Your task to perform on an android device: Open Maps and search for coffee Image 0: 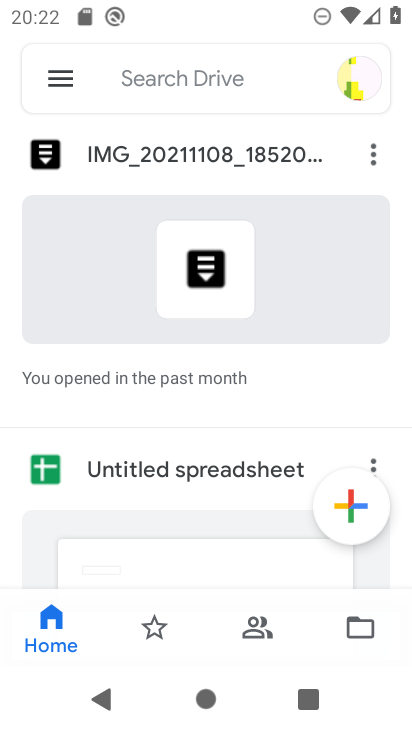
Step 0: press home button
Your task to perform on an android device: Open Maps and search for coffee Image 1: 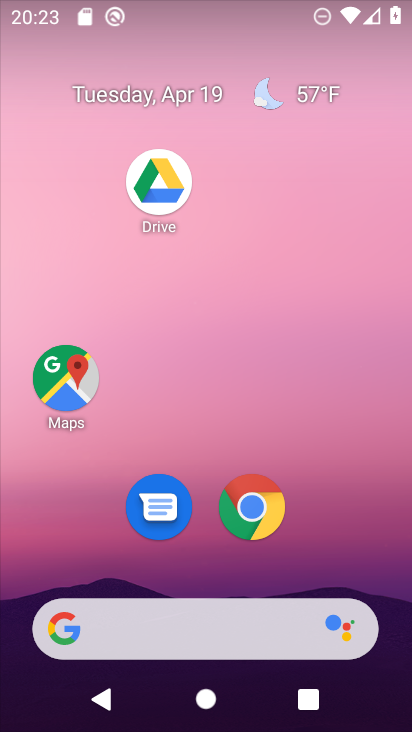
Step 1: click (57, 363)
Your task to perform on an android device: Open Maps and search for coffee Image 2: 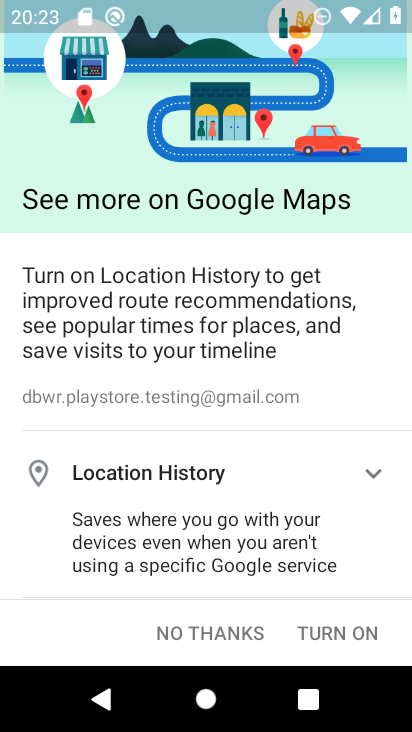
Step 2: click (244, 630)
Your task to perform on an android device: Open Maps and search for coffee Image 3: 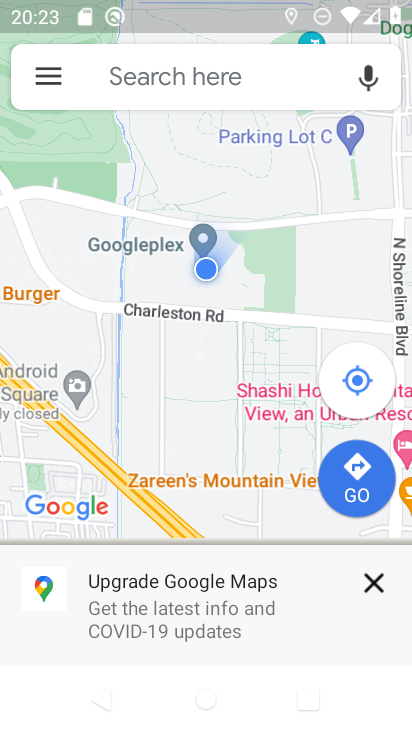
Step 3: click (375, 579)
Your task to perform on an android device: Open Maps and search for coffee Image 4: 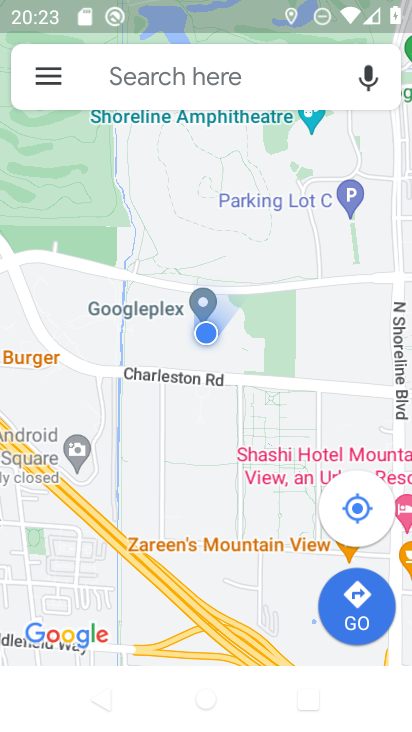
Step 4: click (239, 75)
Your task to perform on an android device: Open Maps and search for coffee Image 5: 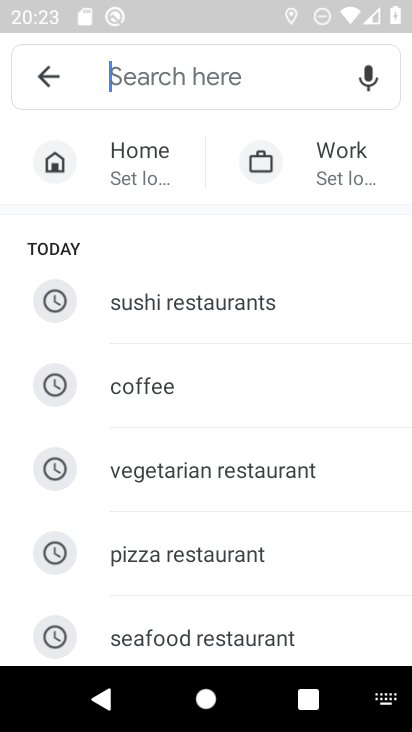
Step 5: click (187, 392)
Your task to perform on an android device: Open Maps and search for coffee Image 6: 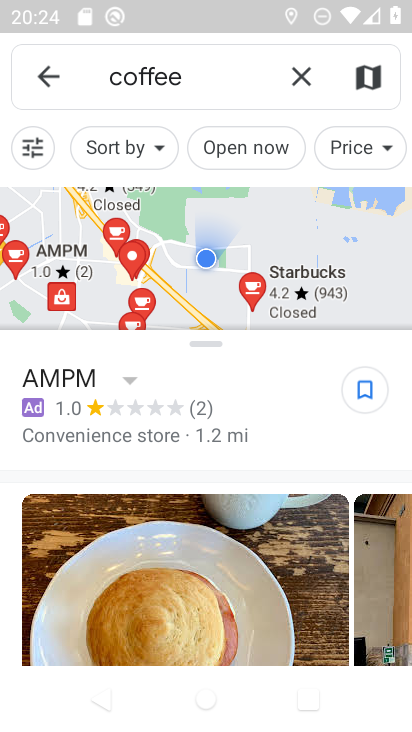
Step 6: task complete